Your task to perform on an android device: open the mobile data screen to see how much data has been used Image 0: 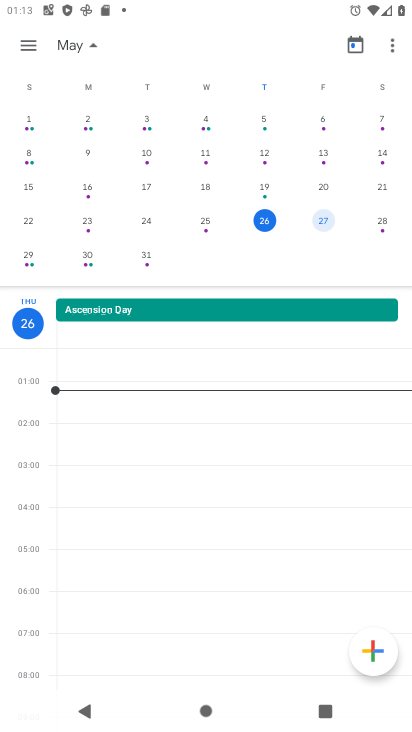
Step 0: press home button
Your task to perform on an android device: open the mobile data screen to see how much data has been used Image 1: 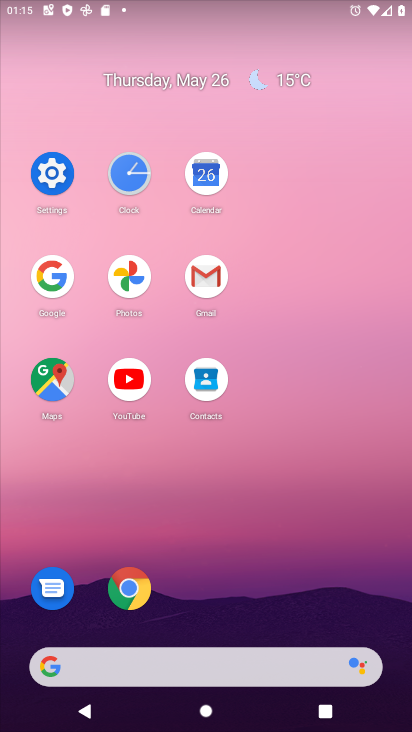
Step 1: click (54, 178)
Your task to perform on an android device: open the mobile data screen to see how much data has been used Image 2: 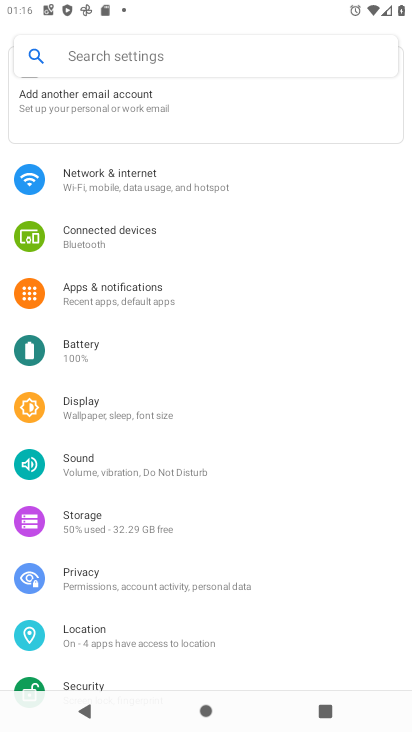
Step 2: click (192, 190)
Your task to perform on an android device: open the mobile data screen to see how much data has been used Image 3: 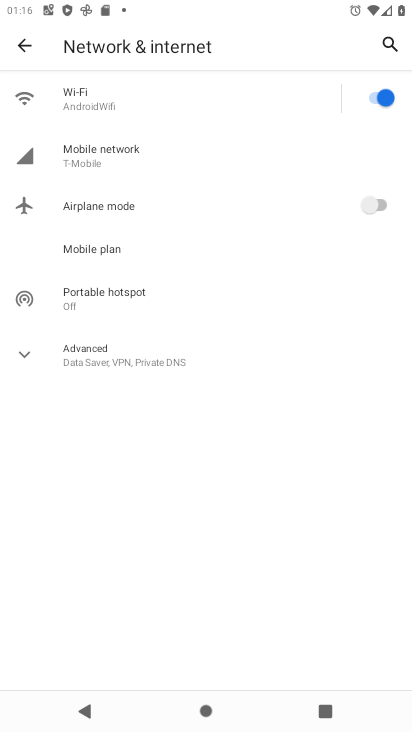
Step 3: click (140, 165)
Your task to perform on an android device: open the mobile data screen to see how much data has been used Image 4: 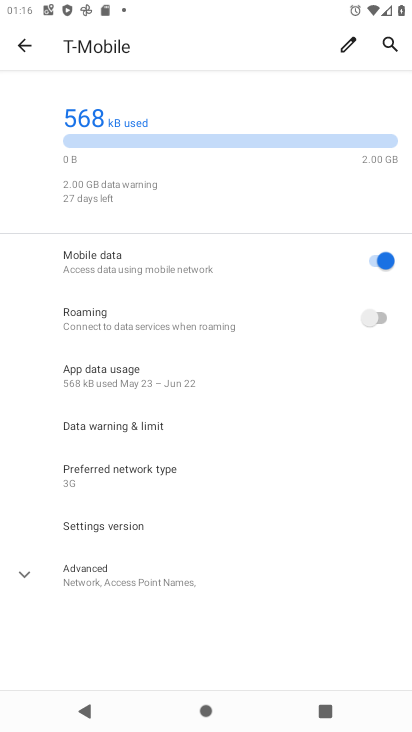
Step 4: task complete